Your task to perform on an android device: delete browsing data in the chrome app Image 0: 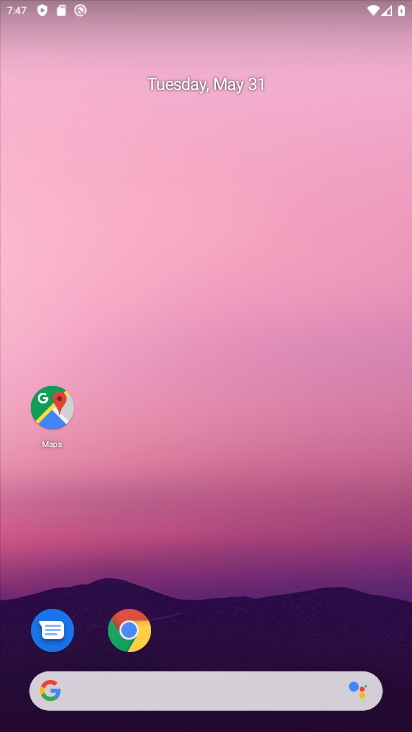
Step 0: press home button
Your task to perform on an android device: delete browsing data in the chrome app Image 1: 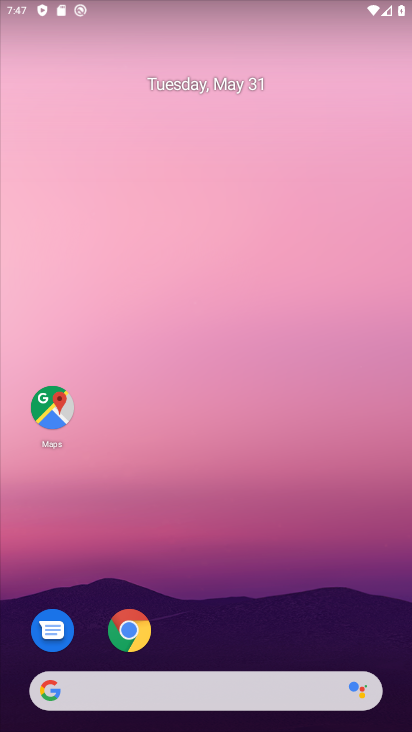
Step 1: click (129, 633)
Your task to perform on an android device: delete browsing data in the chrome app Image 2: 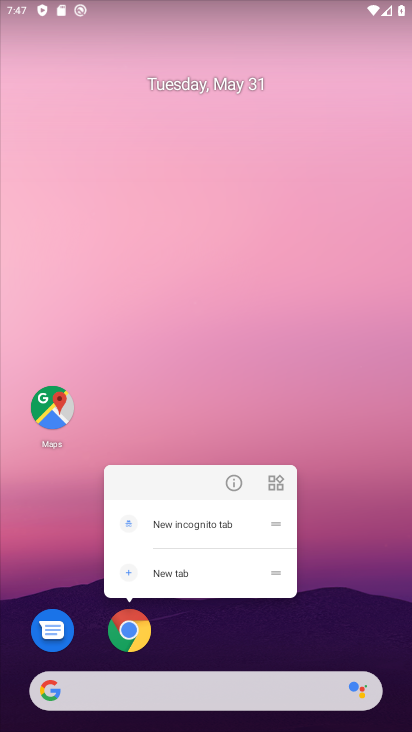
Step 2: click (129, 633)
Your task to perform on an android device: delete browsing data in the chrome app Image 3: 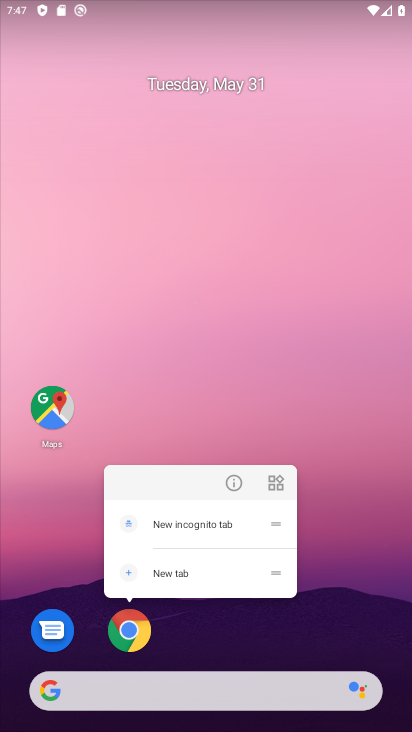
Step 3: click (129, 632)
Your task to perform on an android device: delete browsing data in the chrome app Image 4: 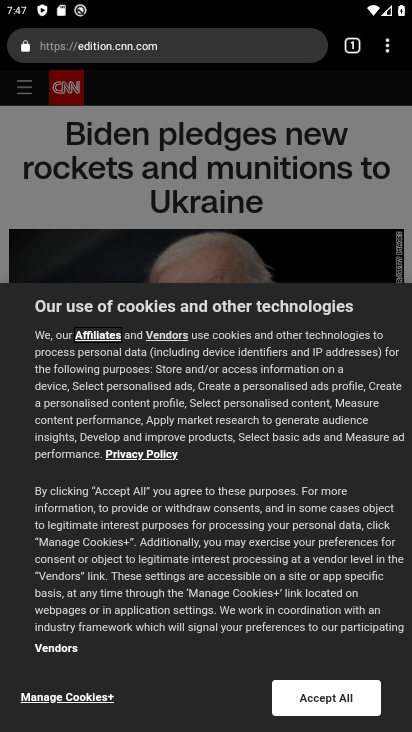
Step 4: drag from (385, 53) to (228, 516)
Your task to perform on an android device: delete browsing data in the chrome app Image 5: 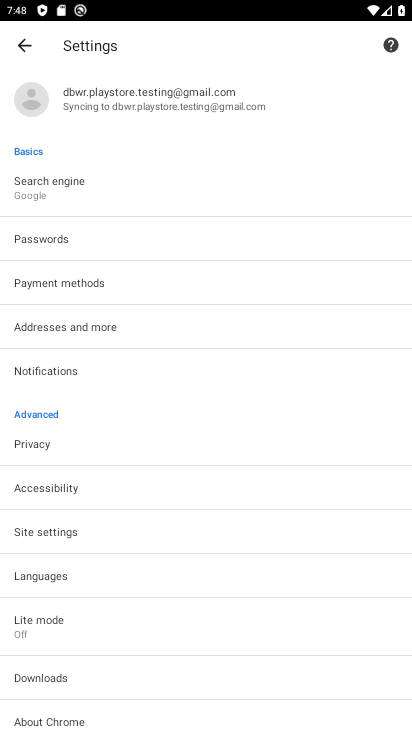
Step 5: click (35, 445)
Your task to perform on an android device: delete browsing data in the chrome app Image 6: 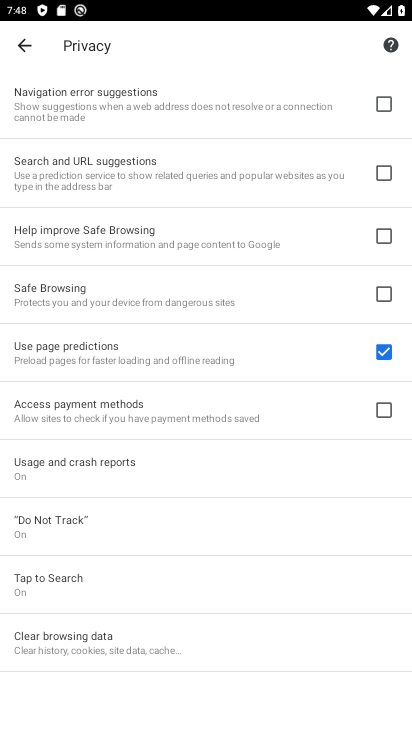
Step 6: click (65, 636)
Your task to perform on an android device: delete browsing data in the chrome app Image 7: 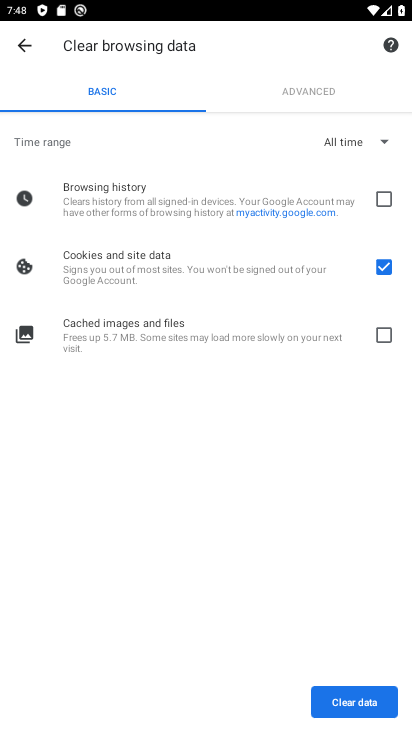
Step 7: click (378, 267)
Your task to perform on an android device: delete browsing data in the chrome app Image 8: 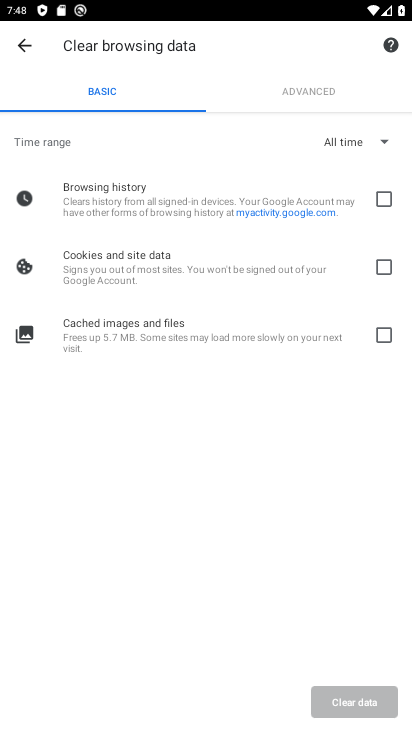
Step 8: click (384, 200)
Your task to perform on an android device: delete browsing data in the chrome app Image 9: 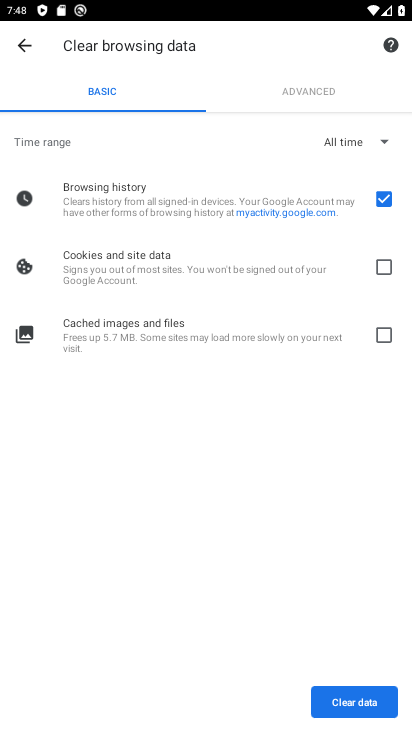
Step 9: click (330, 708)
Your task to perform on an android device: delete browsing data in the chrome app Image 10: 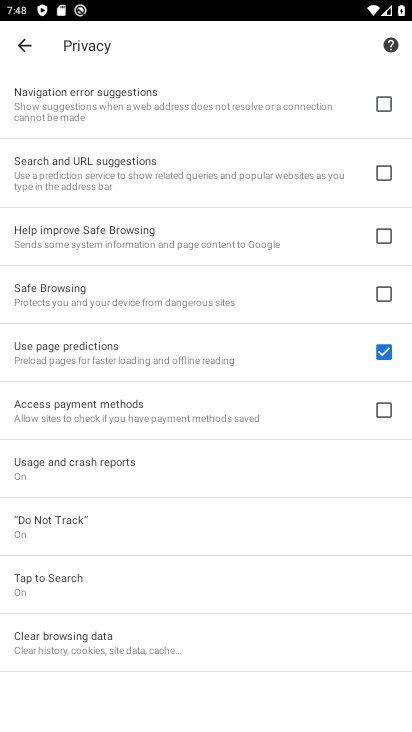
Step 10: task complete